Your task to perform on an android device: Look up the best rated Nike shoes on Nike.com Image 0: 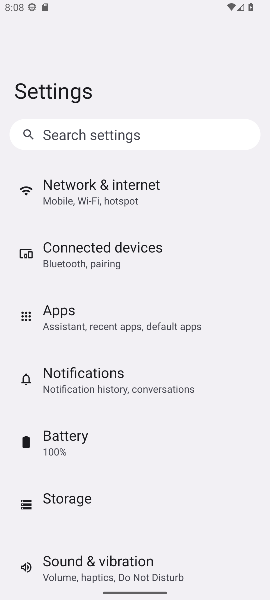
Step 0: press home button
Your task to perform on an android device: Look up the best rated Nike shoes on Nike.com Image 1: 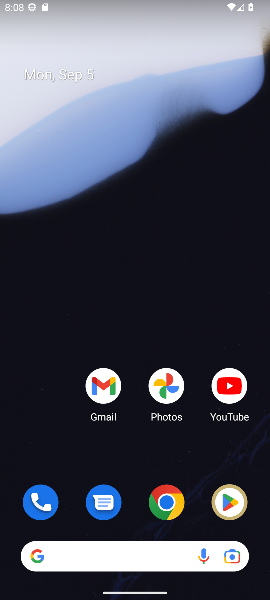
Step 1: drag from (259, 486) to (112, 3)
Your task to perform on an android device: Look up the best rated Nike shoes on Nike.com Image 2: 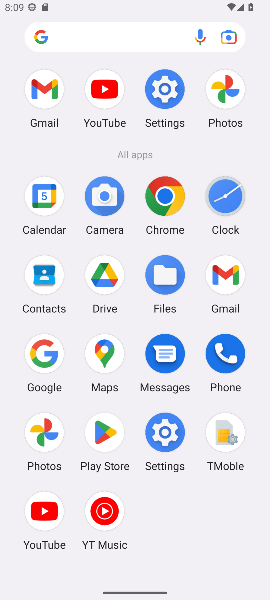
Step 2: click (48, 349)
Your task to perform on an android device: Look up the best rated Nike shoes on Nike.com Image 3: 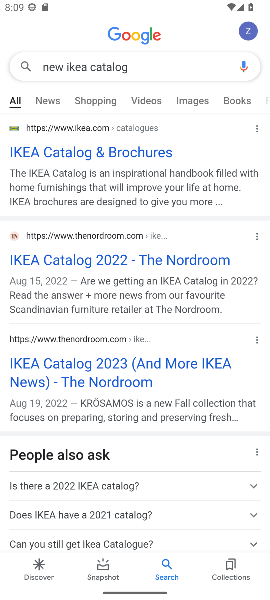
Step 3: press back button
Your task to perform on an android device: Look up the best rated Nike shoes on Nike.com Image 4: 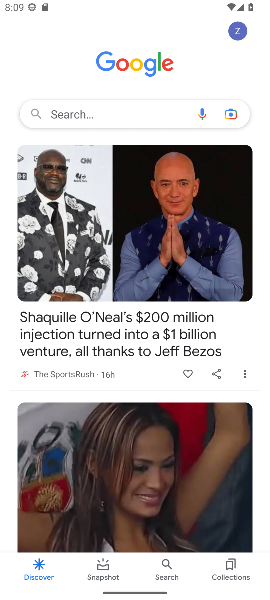
Step 4: click (72, 106)
Your task to perform on an android device: Look up the best rated Nike shoes on Nike.com Image 5: 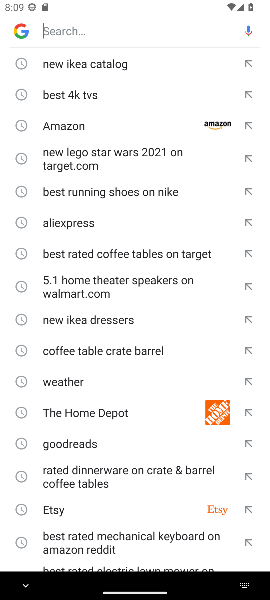
Step 5: type "best rated Nike shoes on Nike.com"
Your task to perform on an android device: Look up the best rated Nike shoes on Nike.com Image 6: 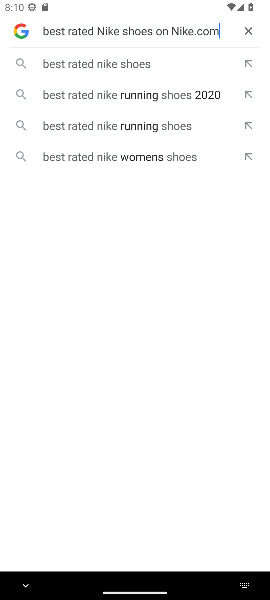
Step 6: click (99, 73)
Your task to perform on an android device: Look up the best rated Nike shoes on Nike.com Image 7: 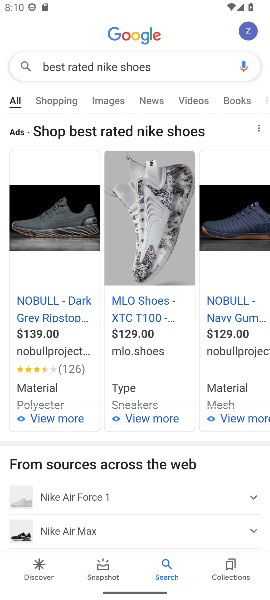
Step 7: task complete